Your task to perform on an android device: Show the shopping cart on walmart.com. Search for "asus rog" on walmart.com, select the first entry, and add it to the cart. Image 0: 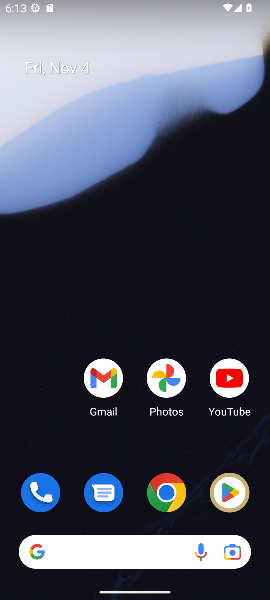
Step 0: drag from (136, 456) to (161, 1)
Your task to perform on an android device: Show the shopping cart on walmart.com. Search for "asus rog" on walmart.com, select the first entry, and add it to the cart. Image 1: 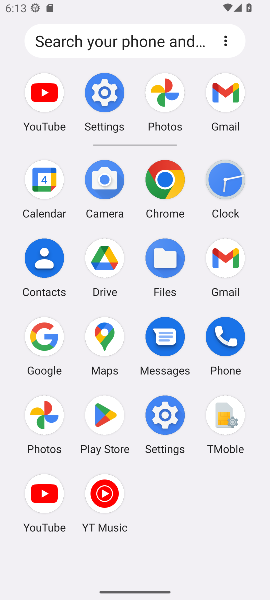
Step 1: click (165, 174)
Your task to perform on an android device: Show the shopping cart on walmart.com. Search for "asus rog" on walmart.com, select the first entry, and add it to the cart. Image 2: 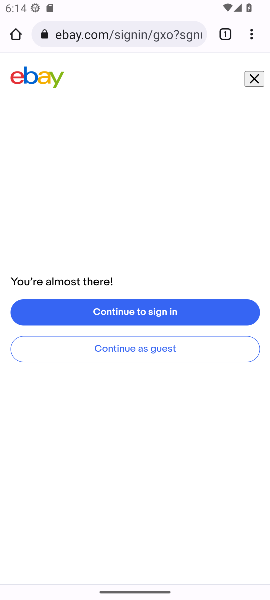
Step 2: click (128, 32)
Your task to perform on an android device: Show the shopping cart on walmart.com. Search for "asus rog" on walmart.com, select the first entry, and add it to the cart. Image 3: 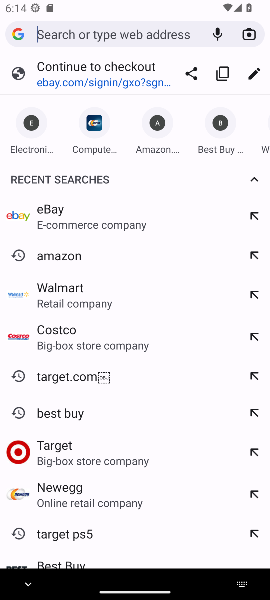
Step 3: type "walmart.com"
Your task to perform on an android device: Show the shopping cart on walmart.com. Search for "asus rog" on walmart.com, select the first entry, and add it to the cart. Image 4: 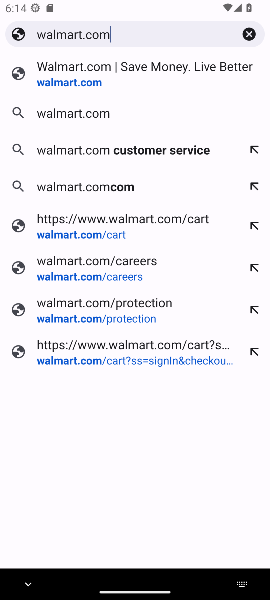
Step 4: press enter
Your task to perform on an android device: Show the shopping cart on walmart.com. Search for "asus rog" on walmart.com, select the first entry, and add it to the cart. Image 5: 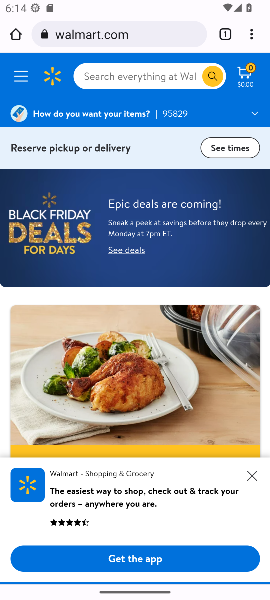
Step 5: click (243, 73)
Your task to perform on an android device: Show the shopping cart on walmart.com. Search for "asus rog" on walmart.com, select the first entry, and add it to the cart. Image 6: 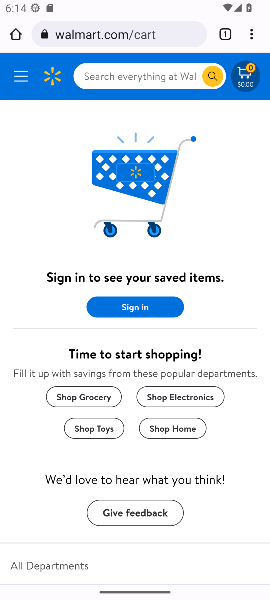
Step 6: click (147, 71)
Your task to perform on an android device: Show the shopping cart on walmart.com. Search for "asus rog" on walmart.com, select the first entry, and add it to the cart. Image 7: 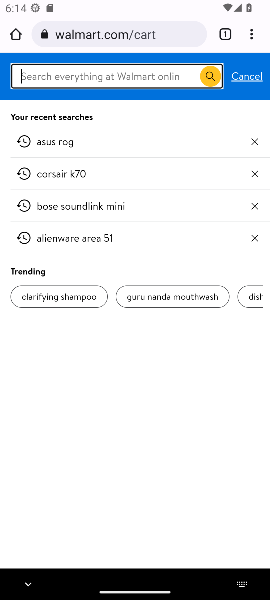
Step 7: type "asus rog"
Your task to perform on an android device: Show the shopping cart on walmart.com. Search for "asus rog" on walmart.com, select the first entry, and add it to the cart. Image 8: 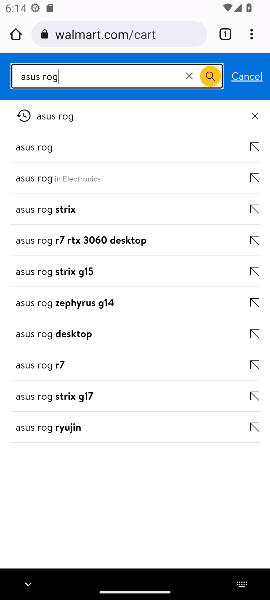
Step 8: press enter
Your task to perform on an android device: Show the shopping cart on walmart.com. Search for "asus rog" on walmart.com, select the first entry, and add it to the cart. Image 9: 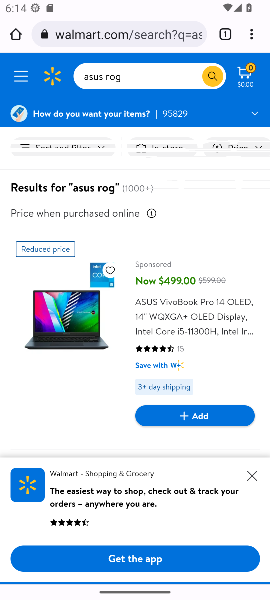
Step 9: drag from (200, 388) to (216, 63)
Your task to perform on an android device: Show the shopping cart on walmart.com. Search for "asus rog" on walmart.com, select the first entry, and add it to the cart. Image 10: 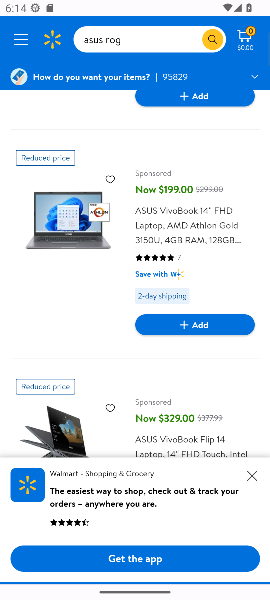
Step 10: drag from (156, 381) to (179, 115)
Your task to perform on an android device: Show the shopping cart on walmart.com. Search for "asus rog" on walmart.com, select the first entry, and add it to the cart. Image 11: 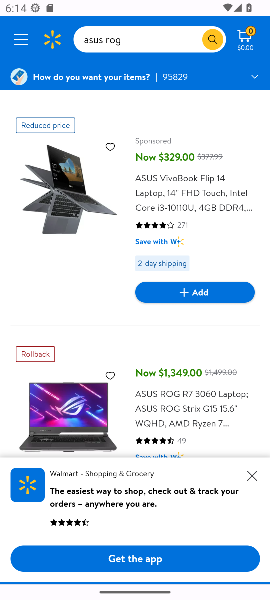
Step 11: drag from (164, 414) to (189, 227)
Your task to perform on an android device: Show the shopping cart on walmart.com. Search for "asus rog" on walmart.com, select the first entry, and add it to the cart. Image 12: 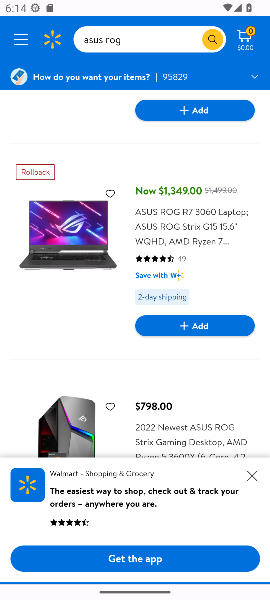
Step 12: click (214, 326)
Your task to perform on an android device: Show the shopping cart on walmart.com. Search for "asus rog" on walmart.com, select the first entry, and add it to the cart. Image 13: 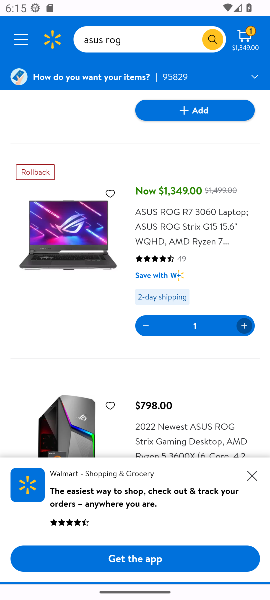
Step 13: task complete